Your task to perform on an android device: Search for pizza restaurants on Maps Image 0: 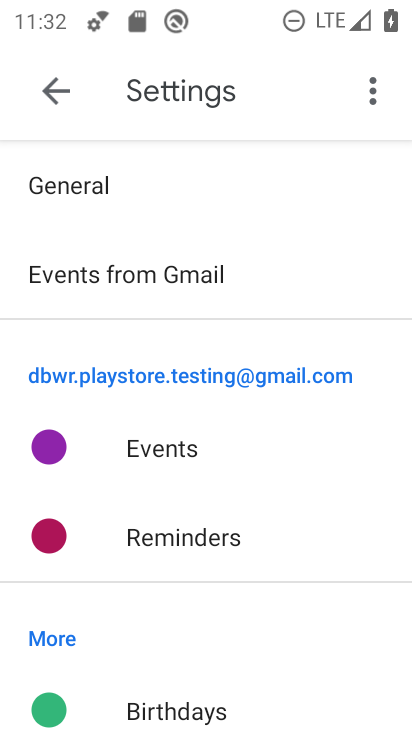
Step 0: press home button
Your task to perform on an android device: Search for pizza restaurants on Maps Image 1: 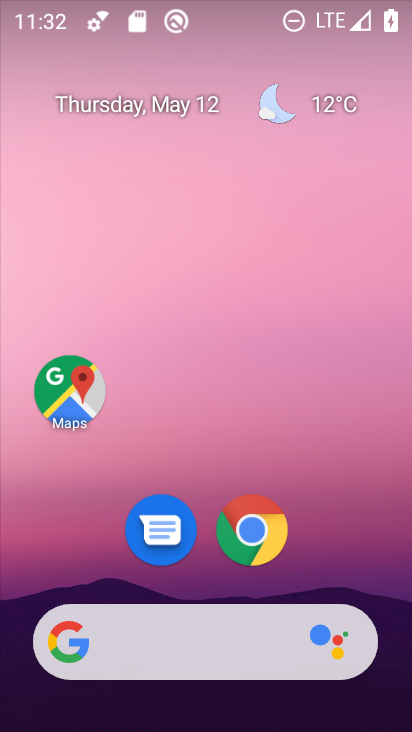
Step 1: click (52, 397)
Your task to perform on an android device: Search for pizza restaurants on Maps Image 2: 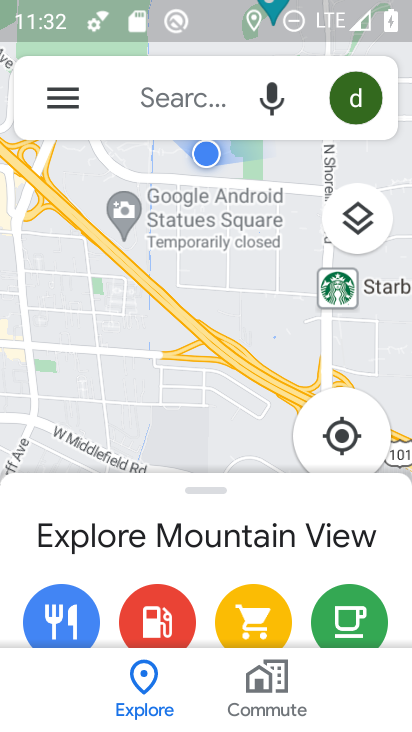
Step 2: click (192, 90)
Your task to perform on an android device: Search for pizza restaurants on Maps Image 3: 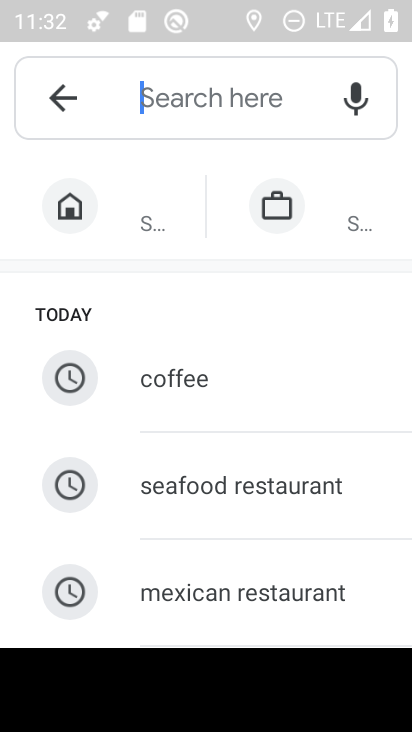
Step 3: drag from (221, 548) to (349, 132)
Your task to perform on an android device: Search for pizza restaurants on Maps Image 4: 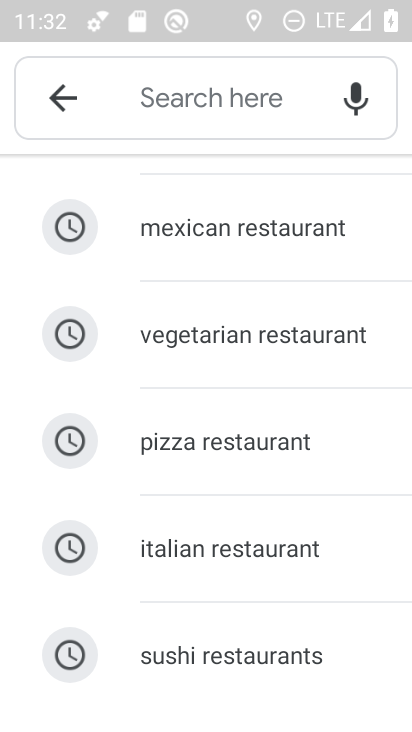
Step 4: click (241, 442)
Your task to perform on an android device: Search for pizza restaurants on Maps Image 5: 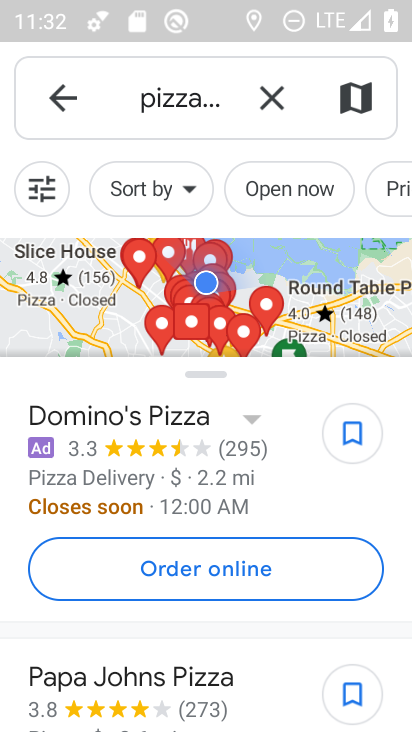
Step 5: task complete